Your task to perform on an android device: Open the phone app and click the voicemail tab. Image 0: 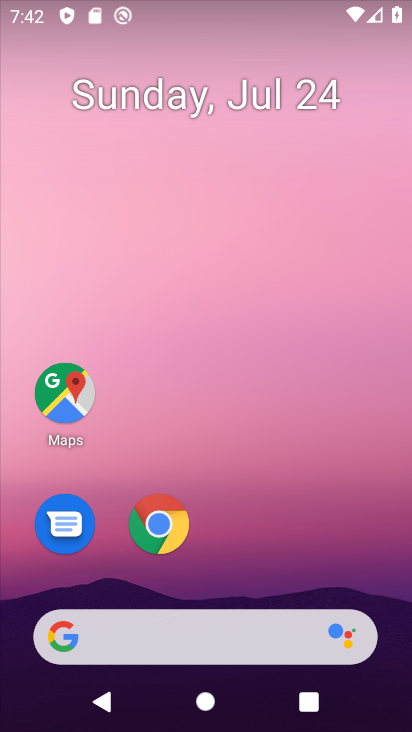
Step 0: drag from (227, 527) to (231, 16)
Your task to perform on an android device: Open the phone app and click the voicemail tab. Image 1: 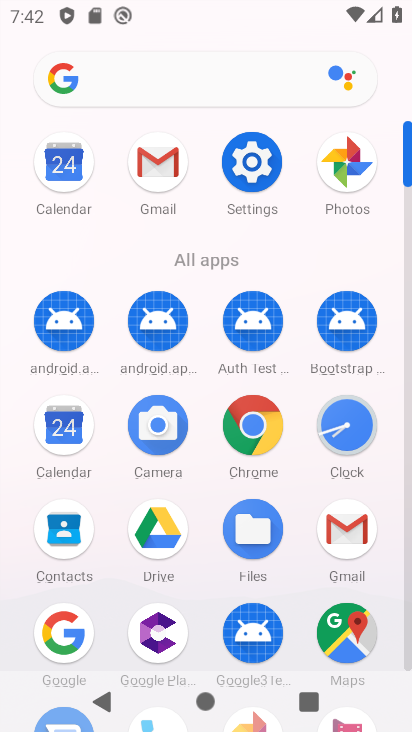
Step 1: drag from (206, 576) to (207, 135)
Your task to perform on an android device: Open the phone app and click the voicemail tab. Image 2: 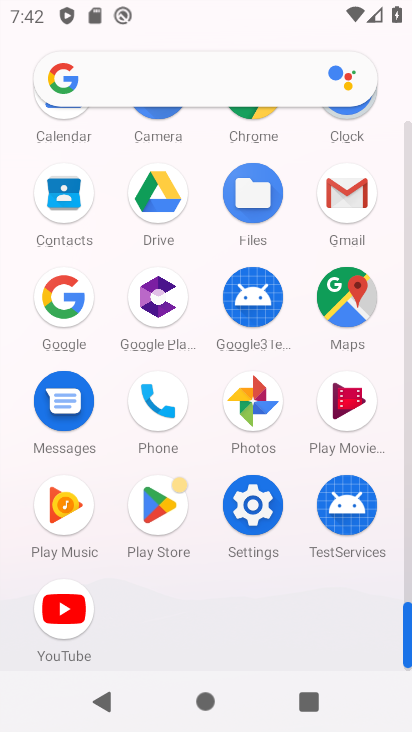
Step 2: click (165, 393)
Your task to perform on an android device: Open the phone app and click the voicemail tab. Image 3: 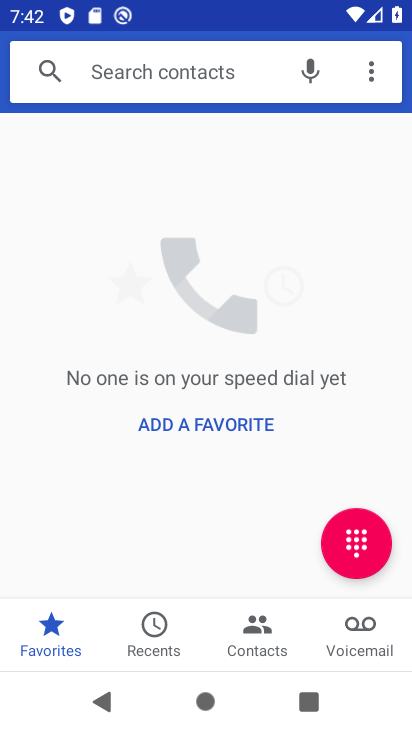
Step 3: click (370, 634)
Your task to perform on an android device: Open the phone app and click the voicemail tab. Image 4: 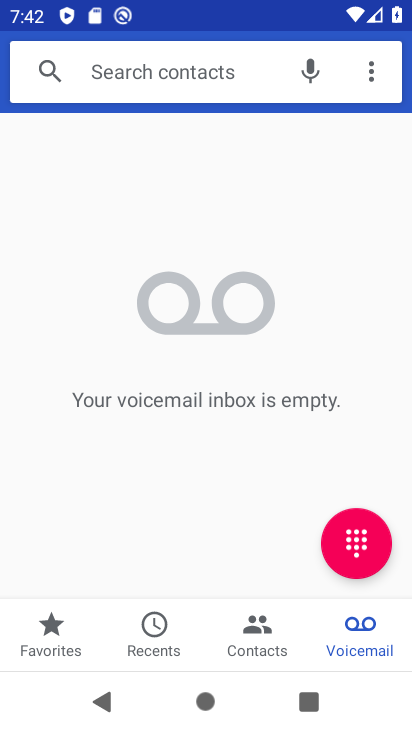
Step 4: task complete